Your task to perform on an android device: toggle improve location accuracy Image 0: 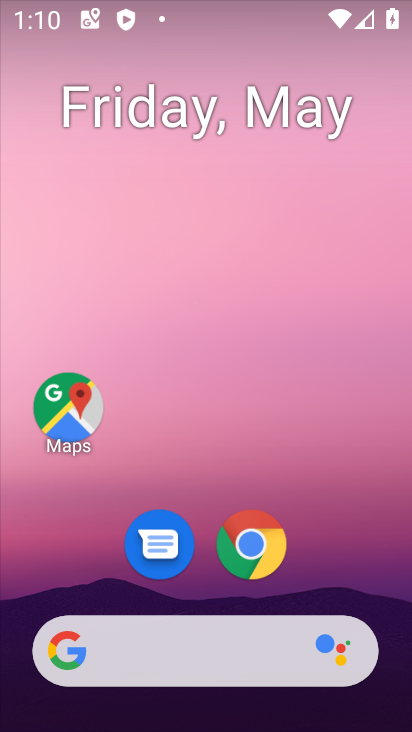
Step 0: click (252, 540)
Your task to perform on an android device: toggle improve location accuracy Image 1: 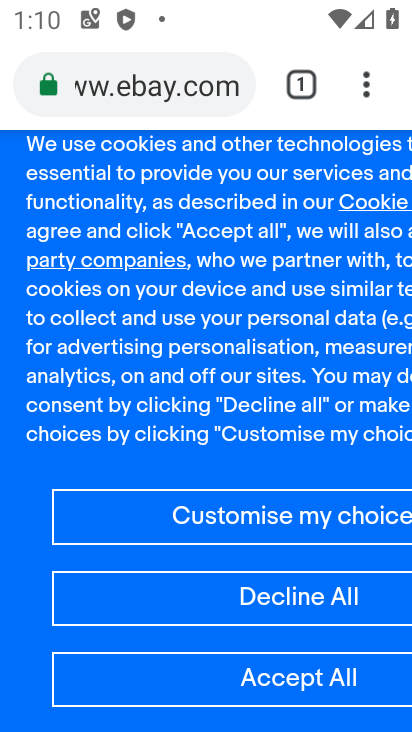
Step 1: click (366, 89)
Your task to perform on an android device: toggle improve location accuracy Image 2: 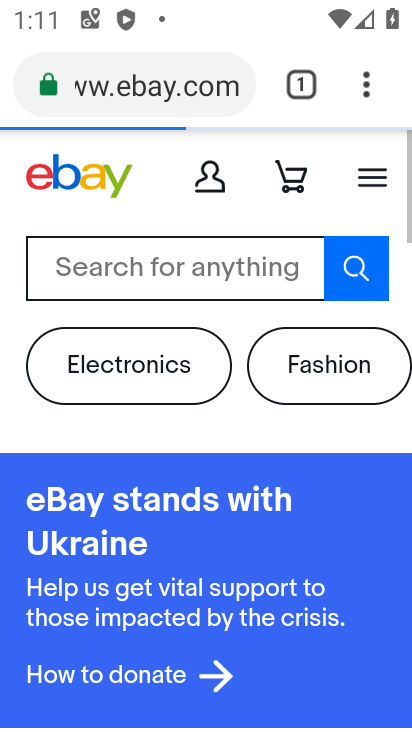
Step 2: click (366, 89)
Your task to perform on an android device: toggle improve location accuracy Image 3: 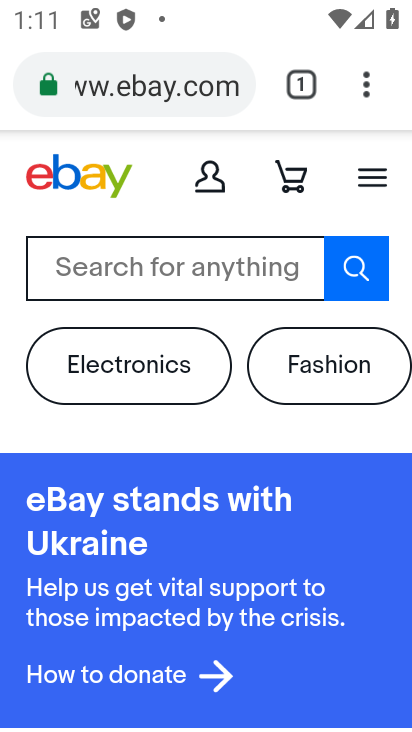
Step 3: press home button
Your task to perform on an android device: toggle improve location accuracy Image 4: 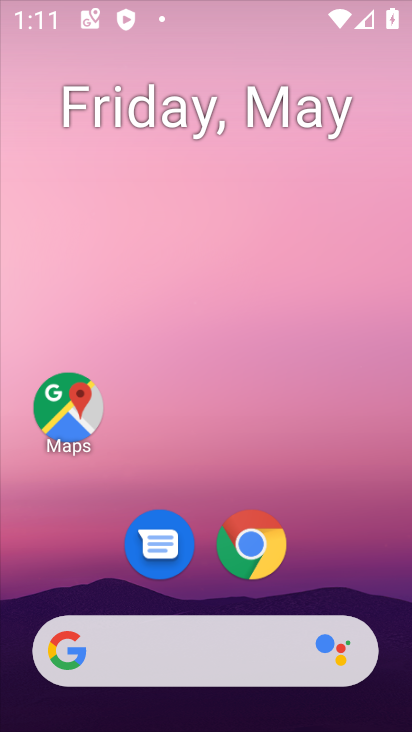
Step 4: drag from (76, 519) to (164, 268)
Your task to perform on an android device: toggle improve location accuracy Image 5: 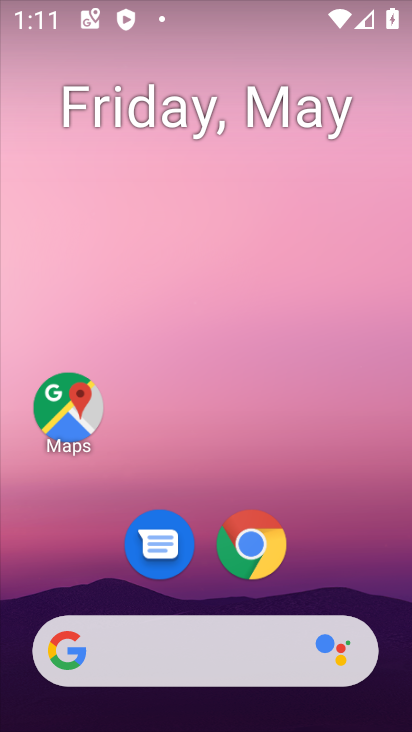
Step 5: drag from (70, 515) to (224, 224)
Your task to perform on an android device: toggle improve location accuracy Image 6: 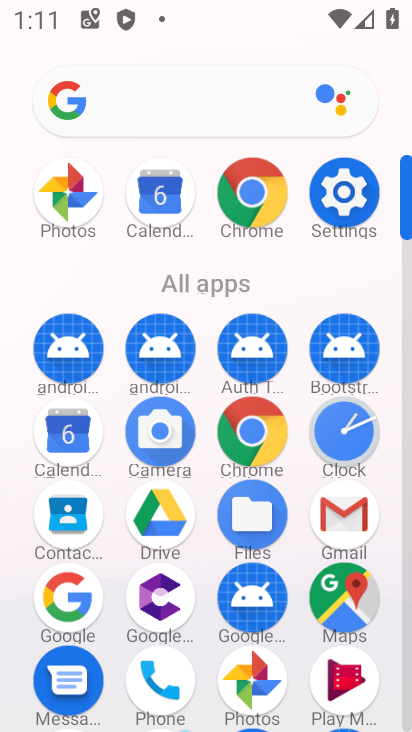
Step 6: click (344, 183)
Your task to perform on an android device: toggle improve location accuracy Image 7: 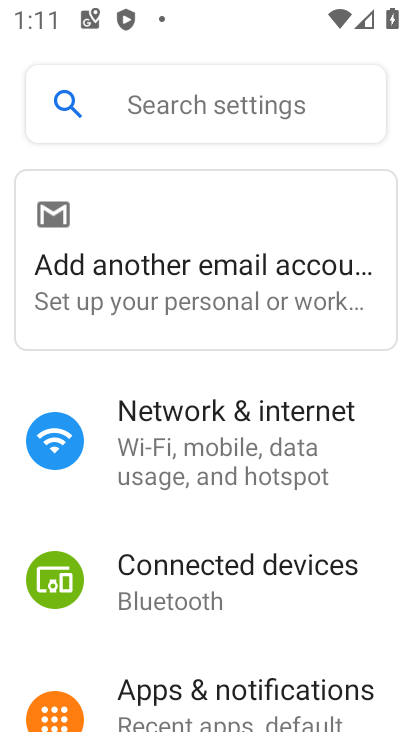
Step 7: drag from (148, 672) to (280, 332)
Your task to perform on an android device: toggle improve location accuracy Image 8: 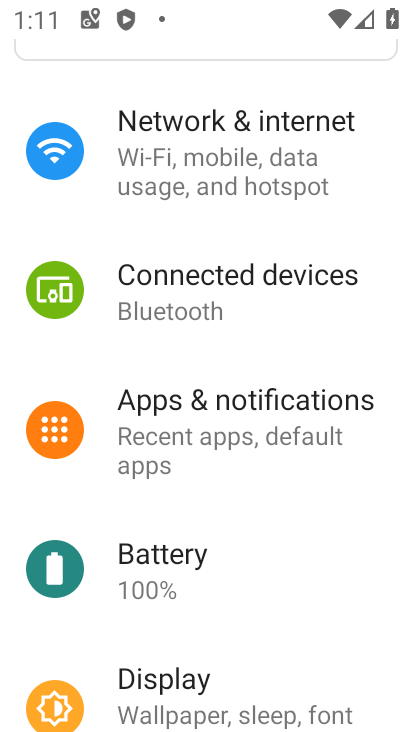
Step 8: drag from (170, 657) to (287, 392)
Your task to perform on an android device: toggle improve location accuracy Image 9: 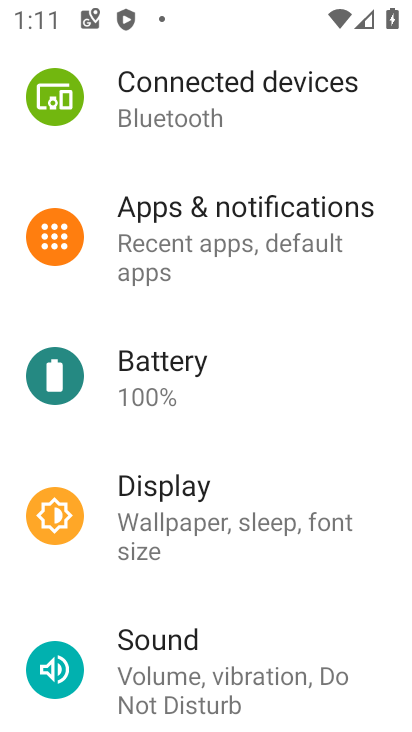
Step 9: drag from (139, 717) to (272, 373)
Your task to perform on an android device: toggle improve location accuracy Image 10: 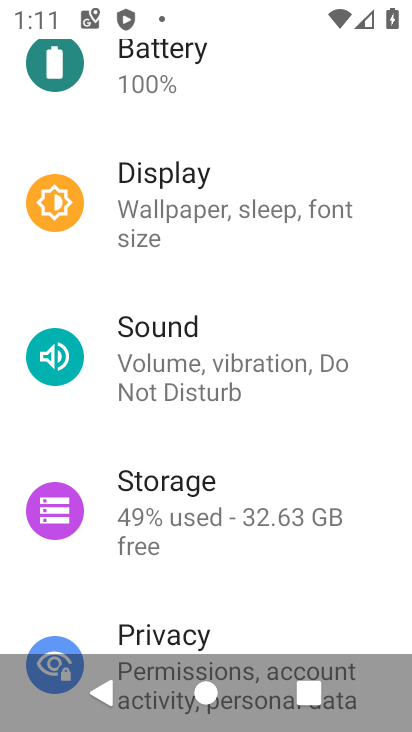
Step 10: drag from (154, 571) to (286, 218)
Your task to perform on an android device: toggle improve location accuracy Image 11: 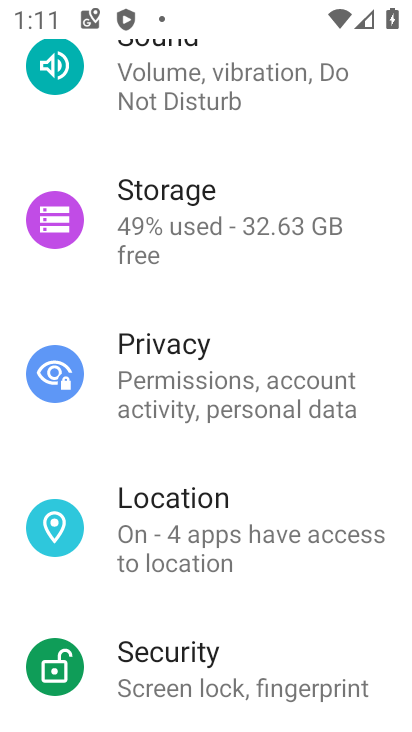
Step 11: click (102, 541)
Your task to perform on an android device: toggle improve location accuracy Image 12: 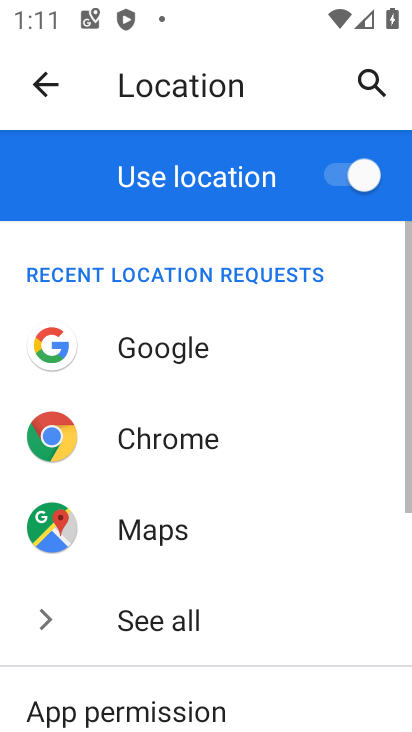
Step 12: drag from (67, 630) to (231, 265)
Your task to perform on an android device: toggle improve location accuracy Image 13: 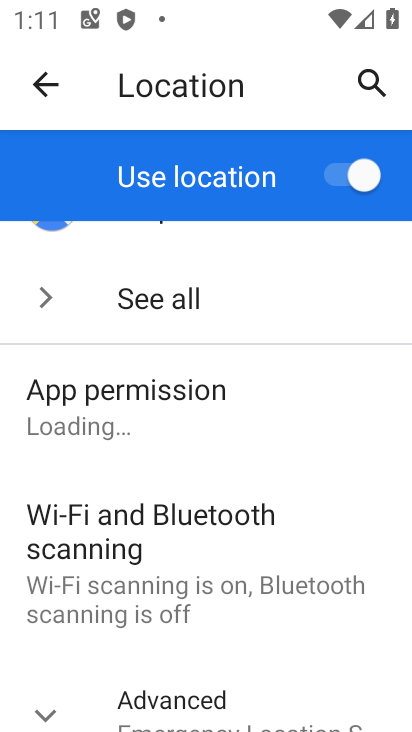
Step 13: drag from (138, 603) to (281, 230)
Your task to perform on an android device: toggle improve location accuracy Image 14: 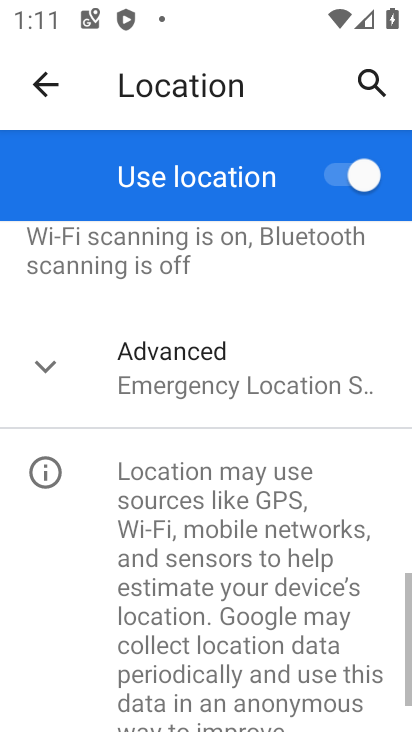
Step 14: click (239, 374)
Your task to perform on an android device: toggle improve location accuracy Image 15: 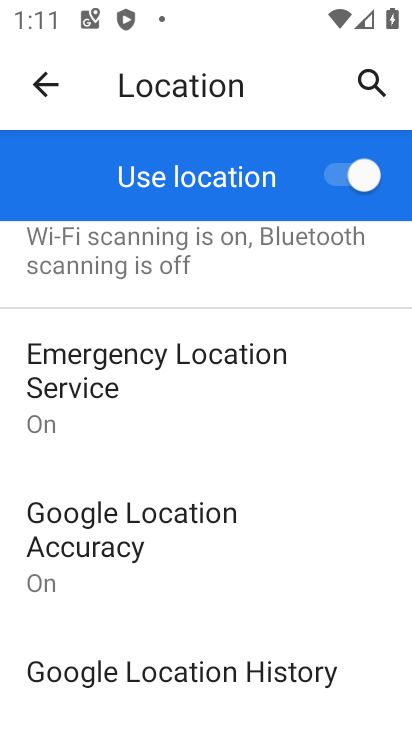
Step 15: click (162, 544)
Your task to perform on an android device: toggle improve location accuracy Image 16: 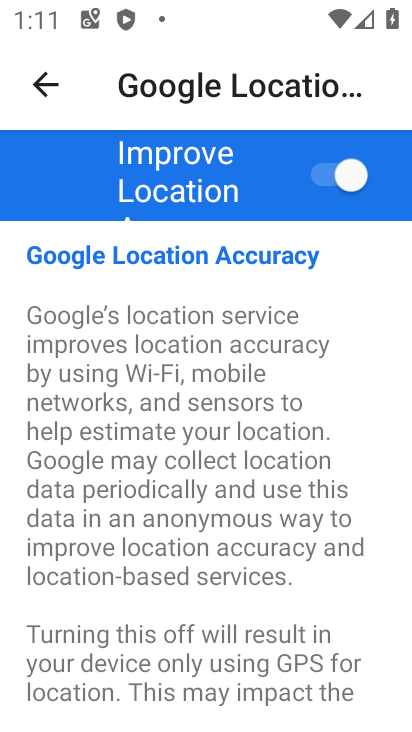
Step 16: click (346, 168)
Your task to perform on an android device: toggle improve location accuracy Image 17: 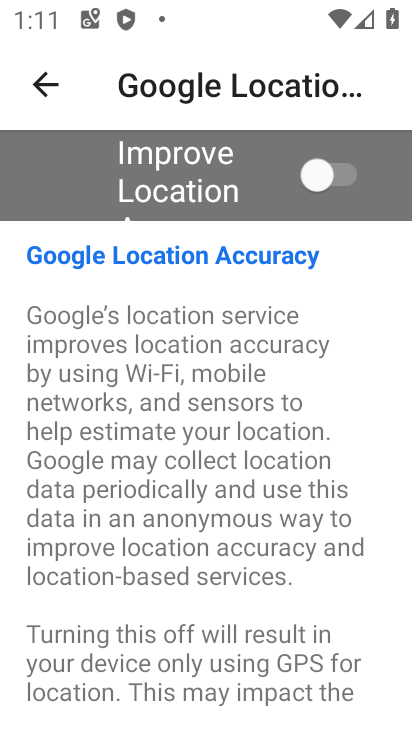
Step 17: task complete